Your task to perform on an android device: open app "Pinterest" (install if not already installed) and enter user name: "Switzerland@yahoo.com" and password: "arithmetics" Image 0: 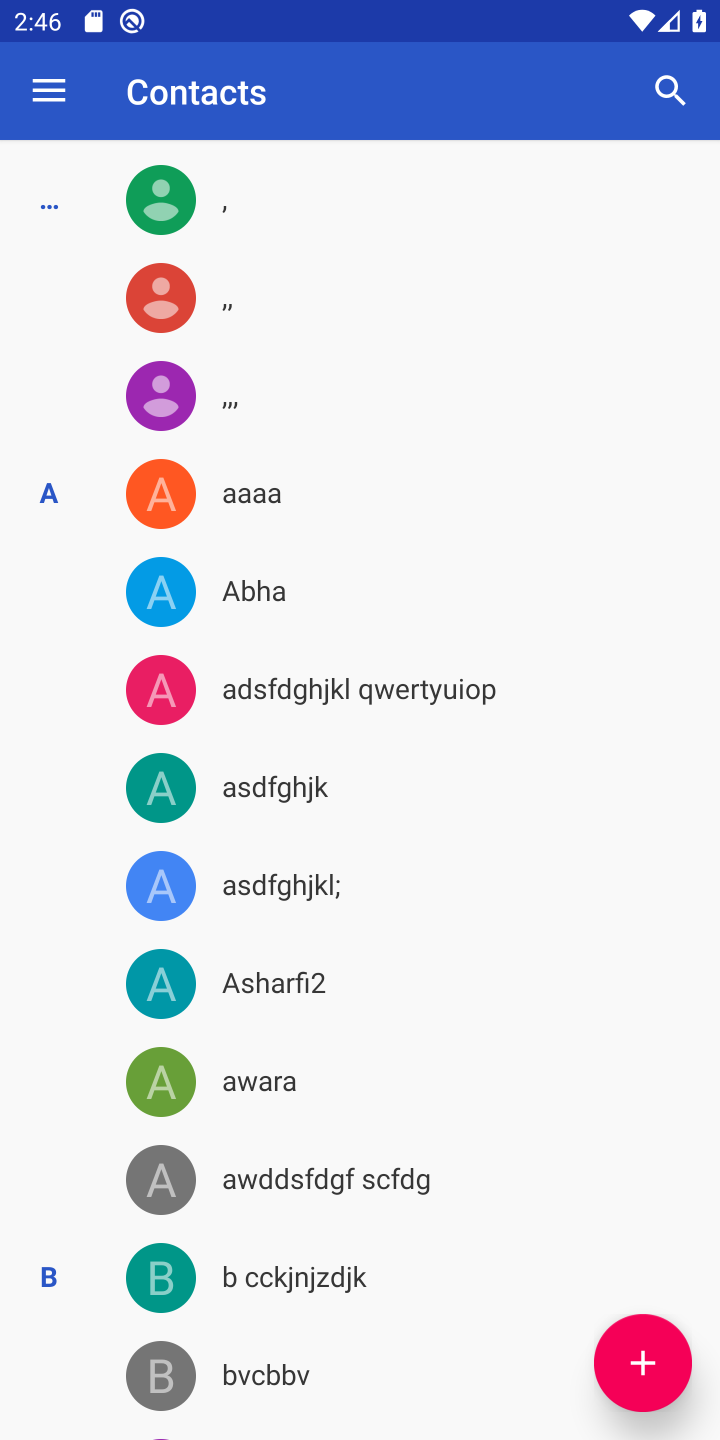
Step 0: press back button
Your task to perform on an android device: open app "Pinterest" (install if not already installed) and enter user name: "Switzerland@yahoo.com" and password: "arithmetics" Image 1: 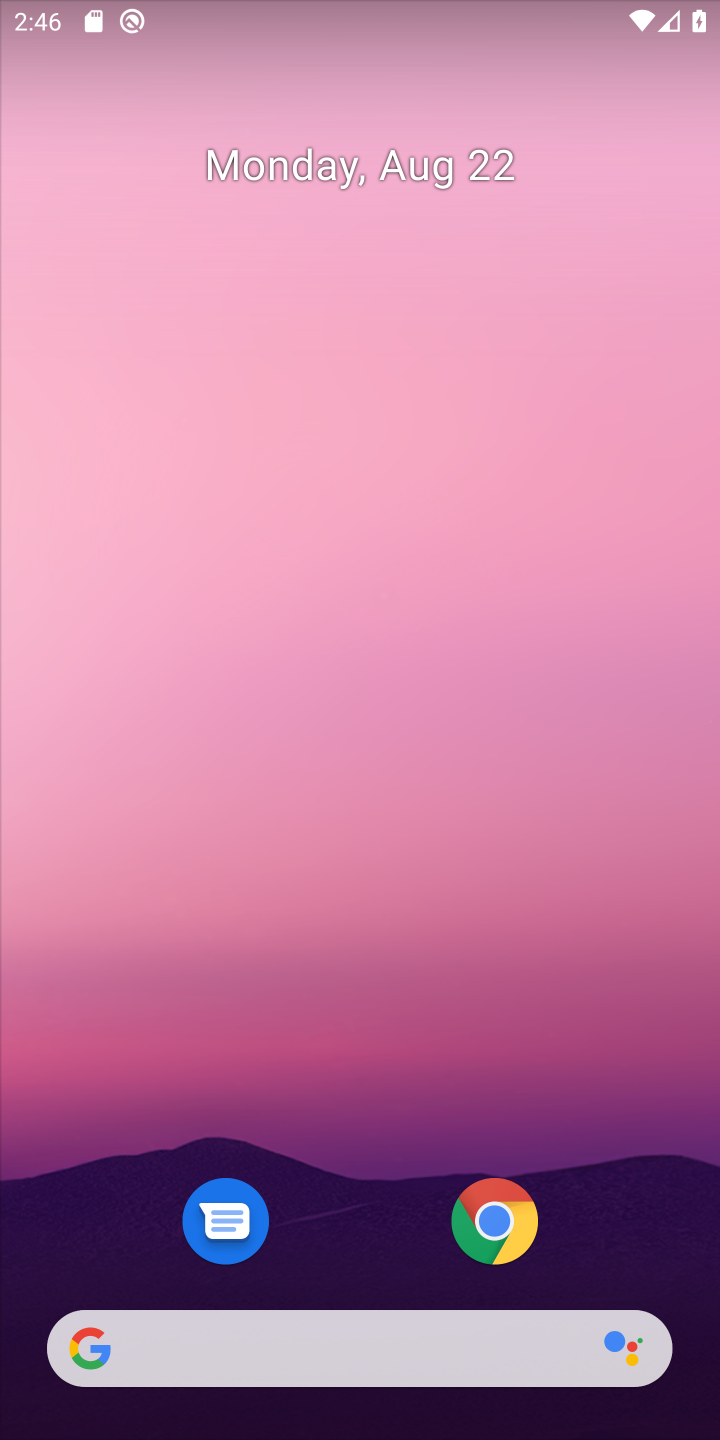
Step 1: drag from (364, 1269) to (302, 242)
Your task to perform on an android device: open app "Pinterest" (install if not already installed) and enter user name: "Switzerland@yahoo.com" and password: "arithmetics" Image 2: 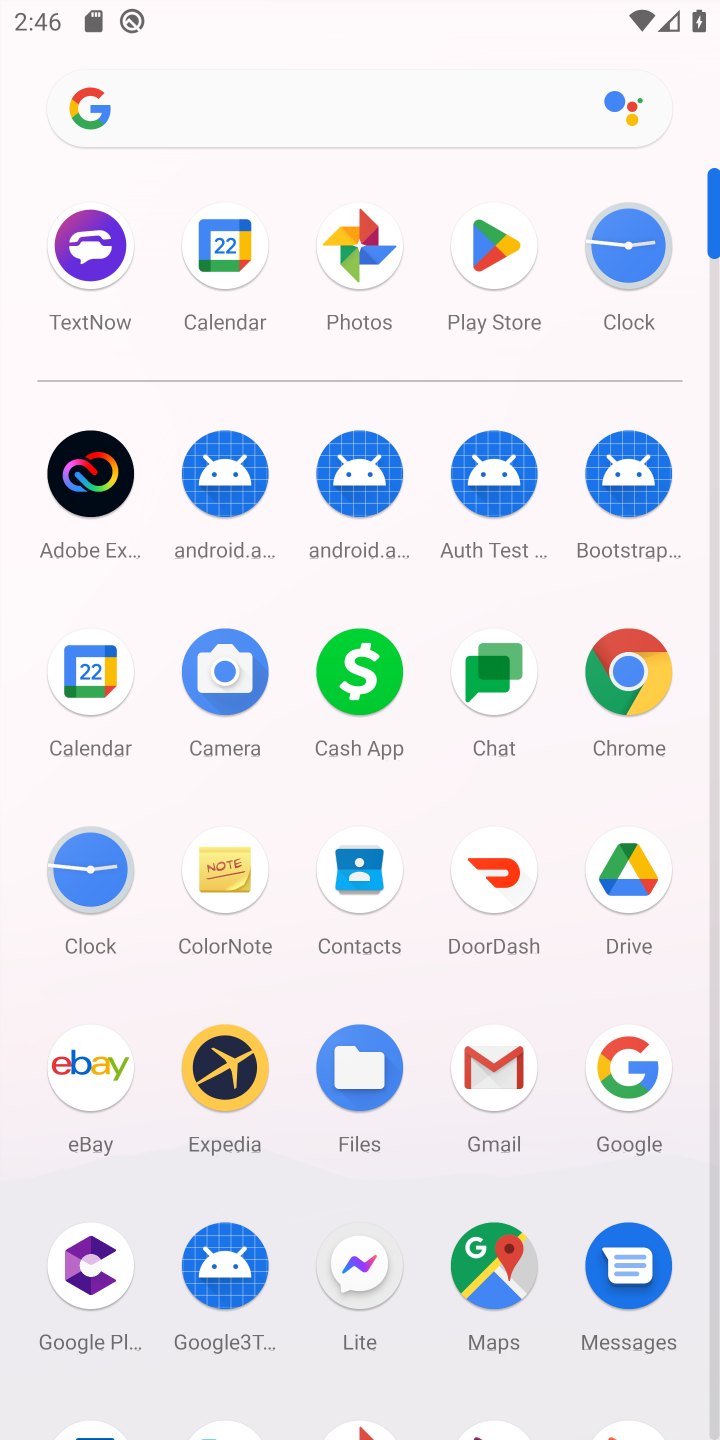
Step 2: click (494, 239)
Your task to perform on an android device: open app "Pinterest" (install if not already installed) and enter user name: "Switzerland@yahoo.com" and password: "arithmetics" Image 3: 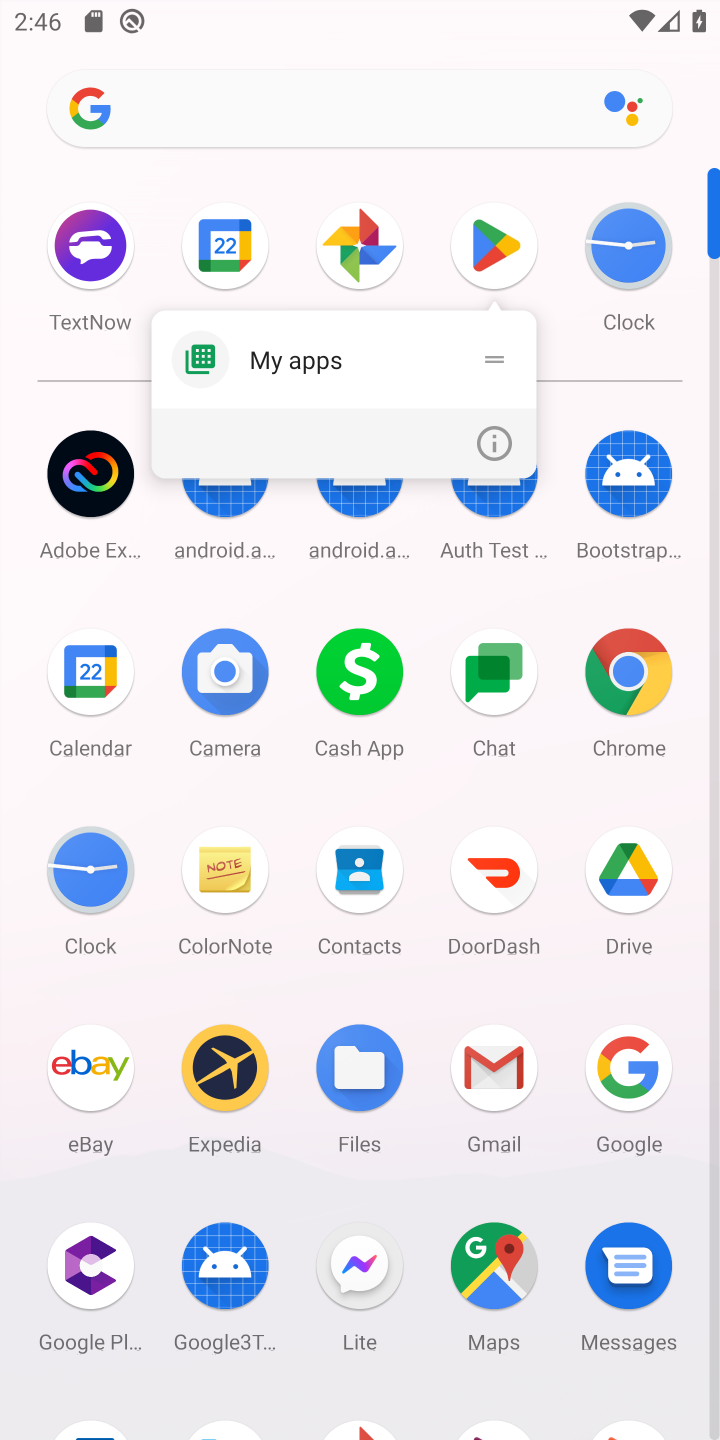
Step 3: click (494, 239)
Your task to perform on an android device: open app "Pinterest" (install if not already installed) and enter user name: "Switzerland@yahoo.com" and password: "arithmetics" Image 4: 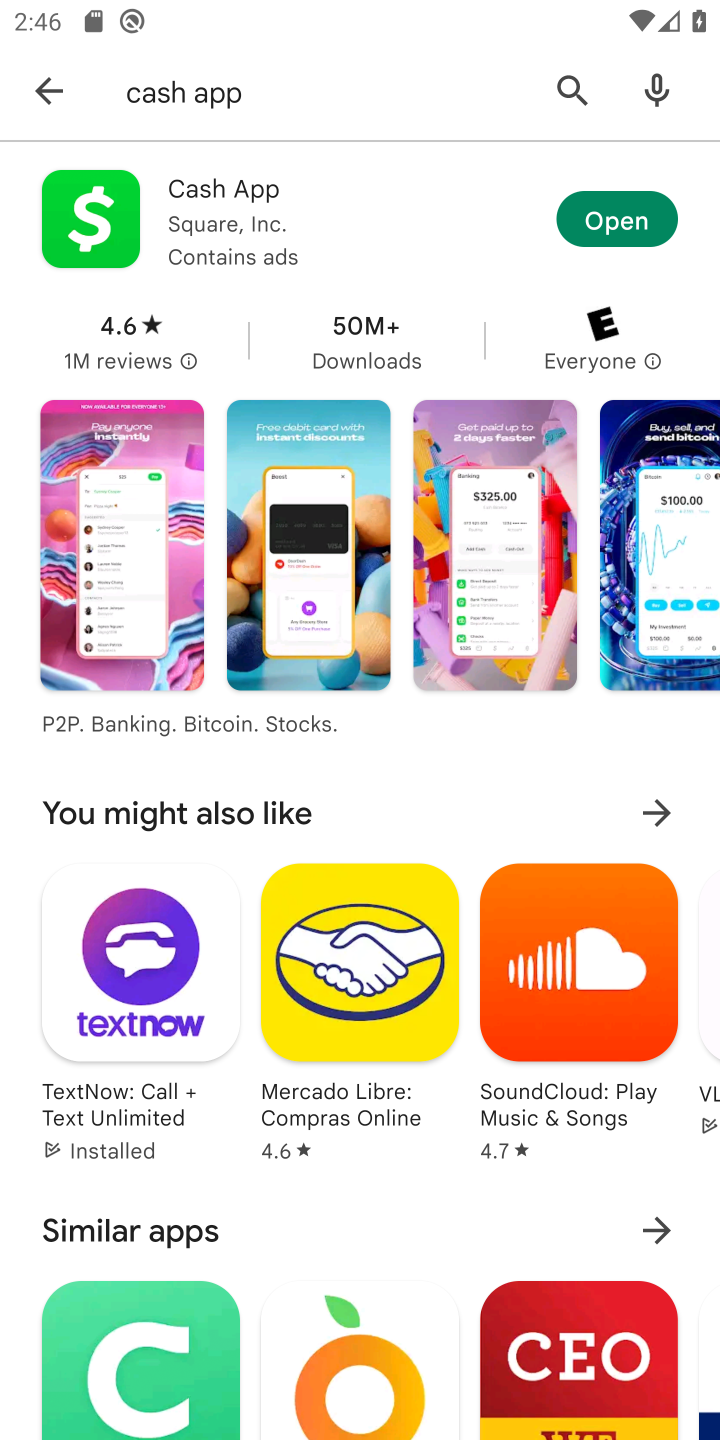
Step 4: click (561, 87)
Your task to perform on an android device: open app "Pinterest" (install if not already installed) and enter user name: "Switzerland@yahoo.com" and password: "arithmetics" Image 5: 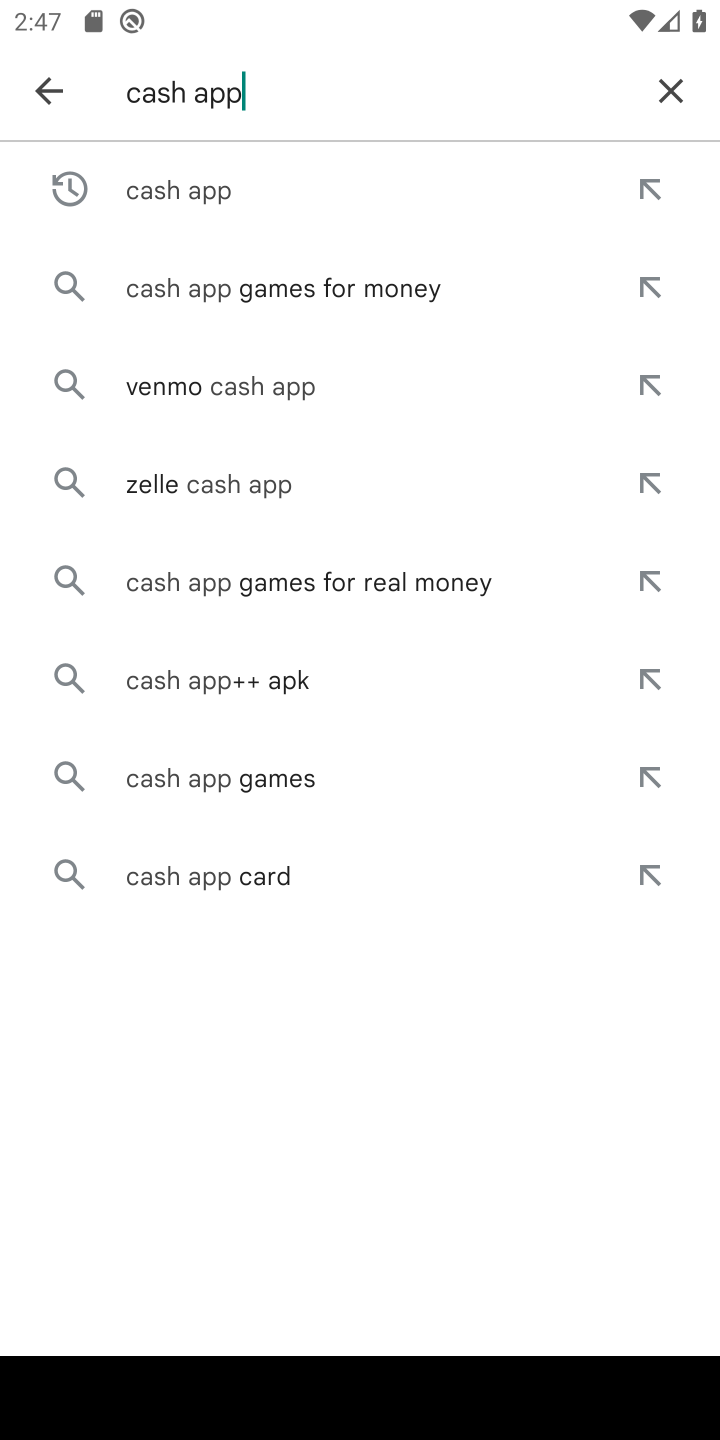
Step 5: click (663, 88)
Your task to perform on an android device: open app "Pinterest" (install if not already installed) and enter user name: "Switzerland@yahoo.com" and password: "arithmetics" Image 6: 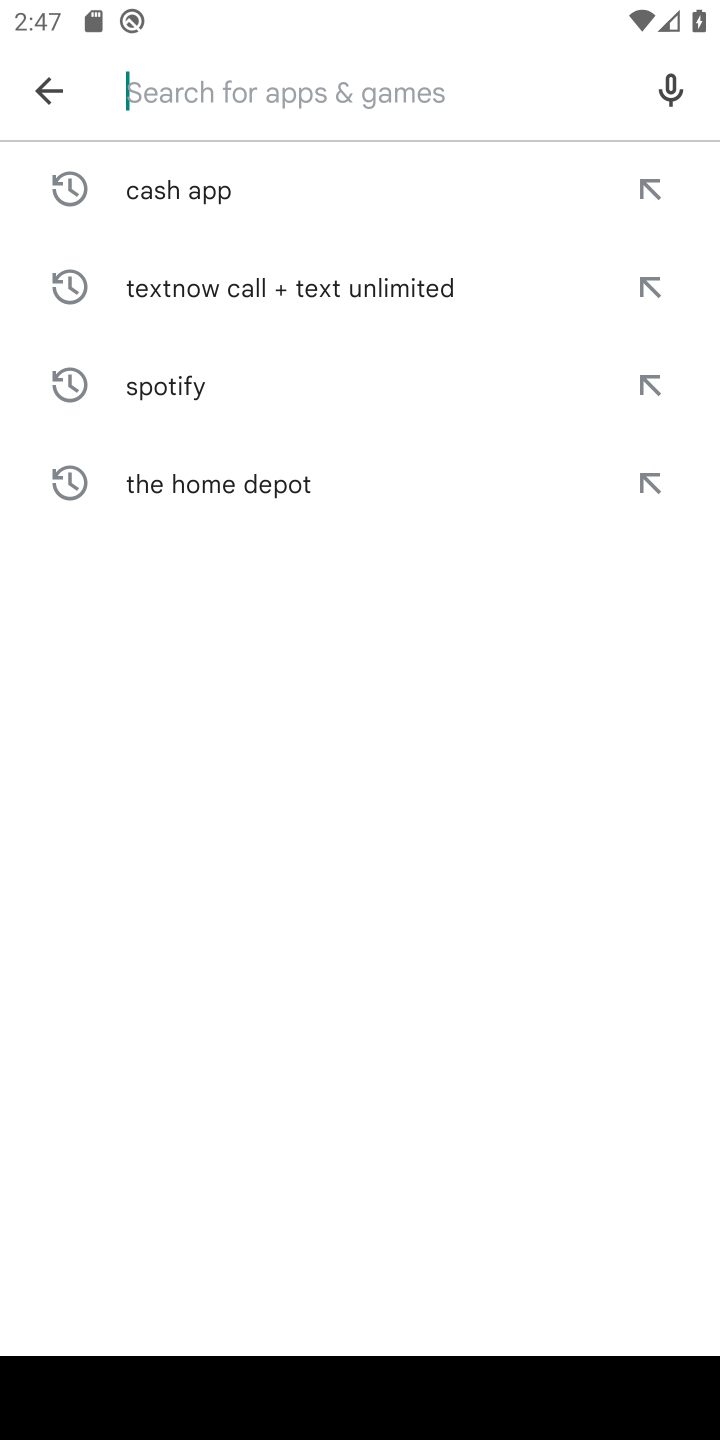
Step 6: type "Pinterest"
Your task to perform on an android device: open app "Pinterest" (install if not already installed) and enter user name: "Switzerland@yahoo.com" and password: "arithmetics" Image 7: 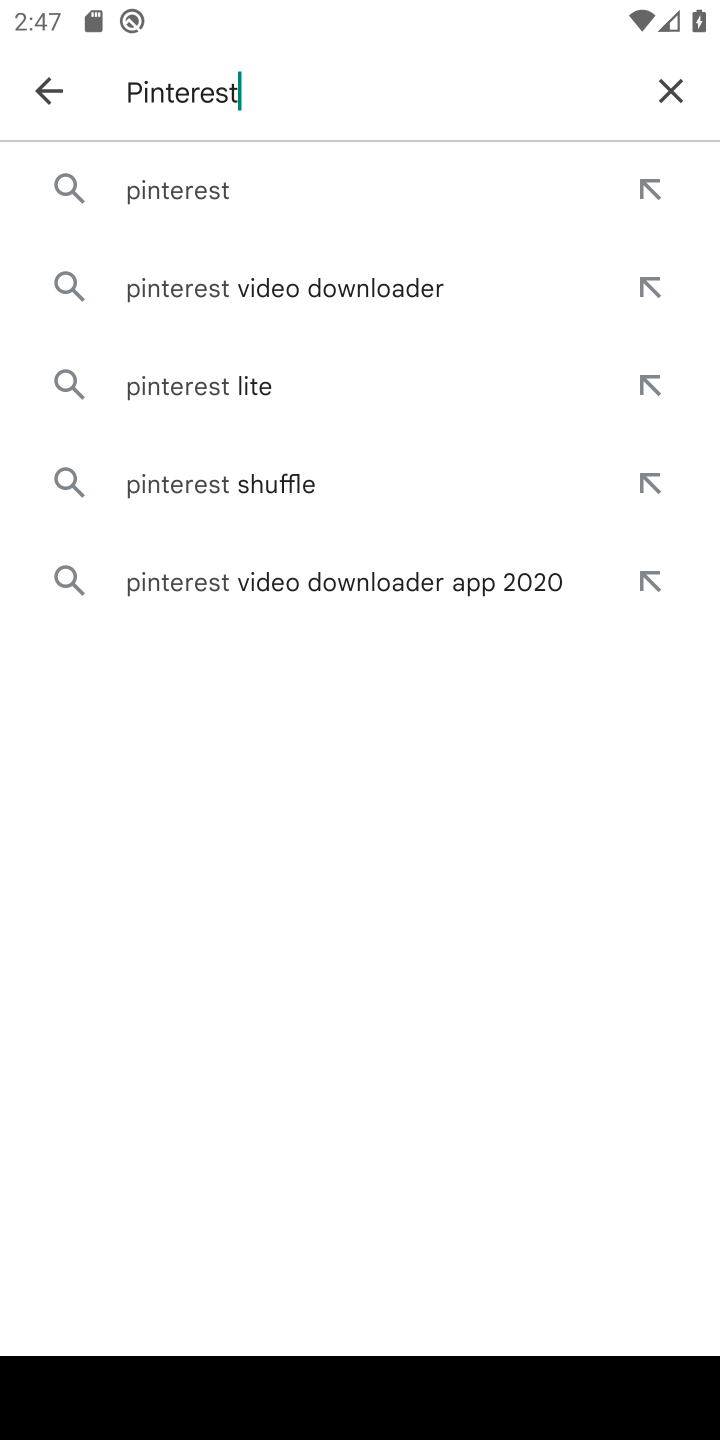
Step 7: type ""
Your task to perform on an android device: open app "Pinterest" (install if not already installed) and enter user name: "Switzerland@yahoo.com" and password: "arithmetics" Image 8: 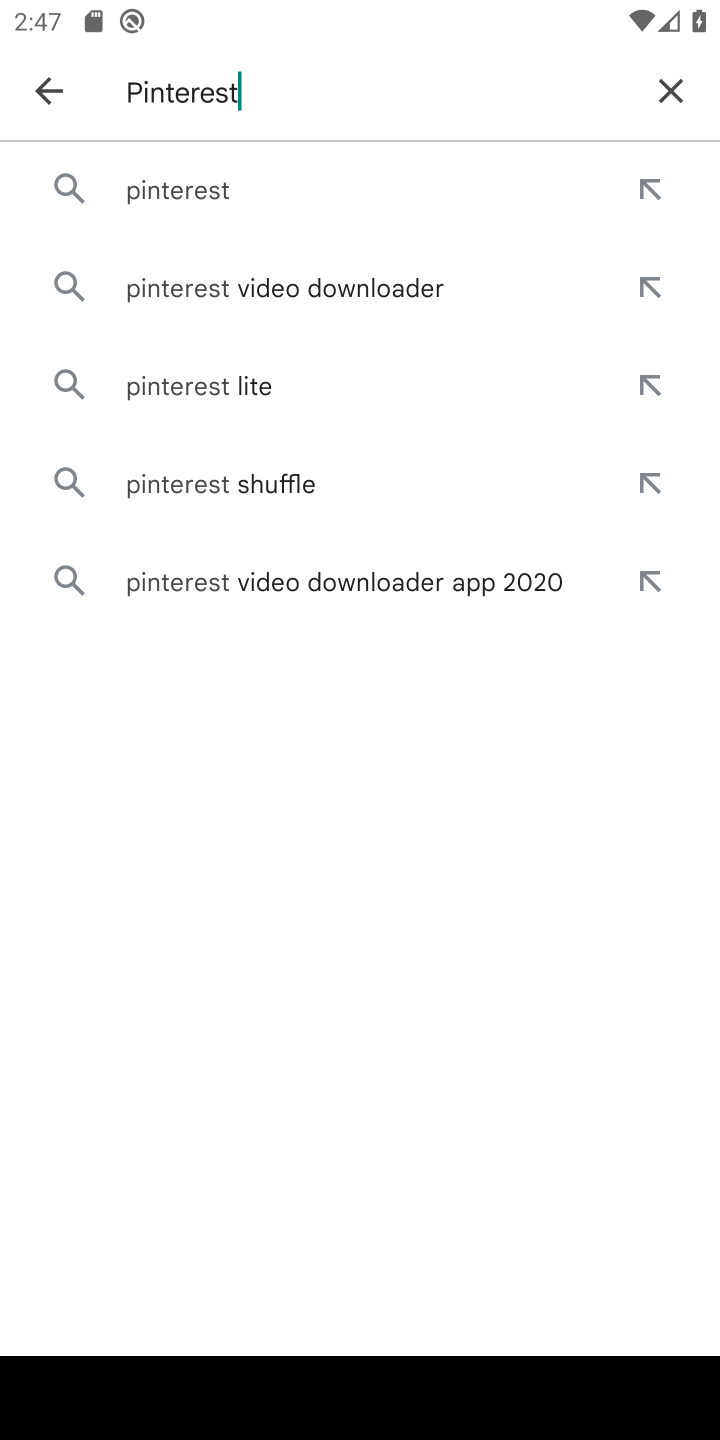
Step 8: click (252, 179)
Your task to perform on an android device: open app "Pinterest" (install if not already installed) and enter user name: "Switzerland@yahoo.com" and password: "arithmetics" Image 9: 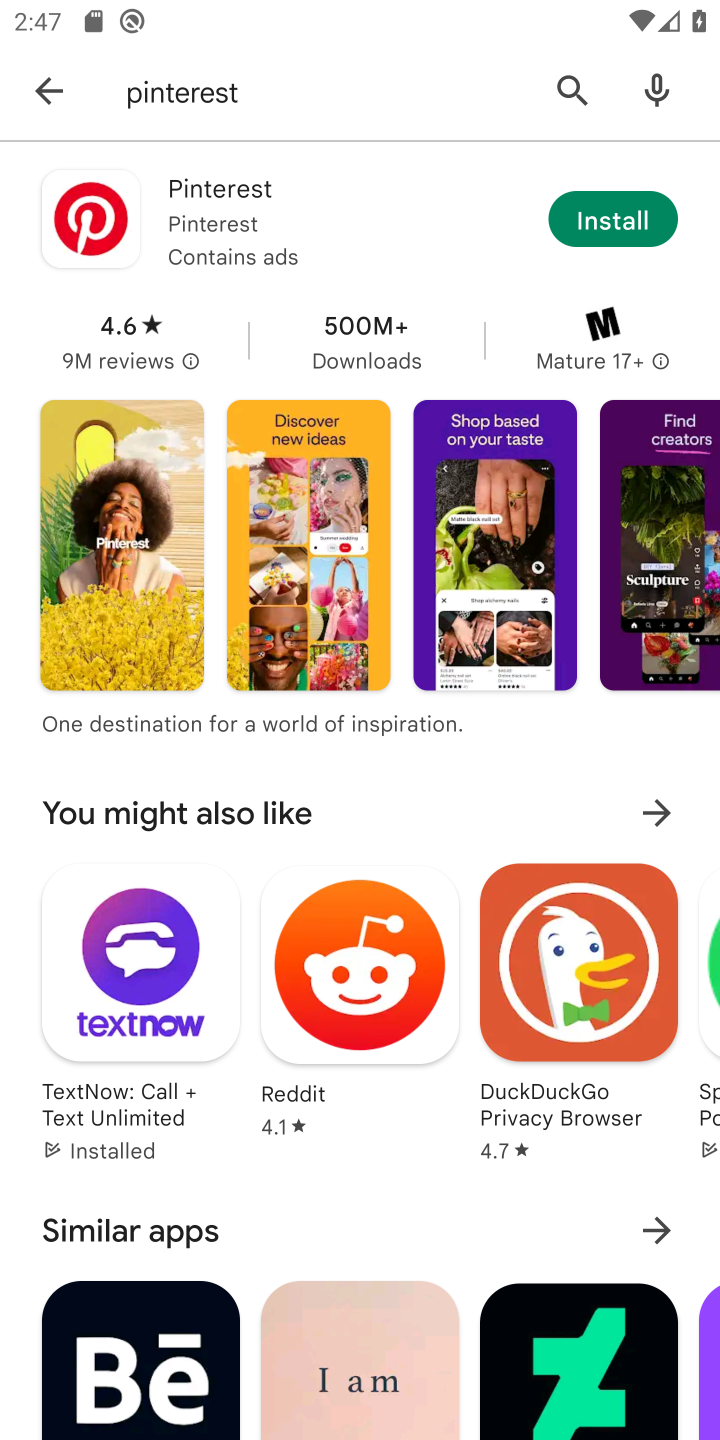
Step 9: click (621, 230)
Your task to perform on an android device: open app "Pinterest" (install if not already installed) and enter user name: "Switzerland@yahoo.com" and password: "arithmetics" Image 10: 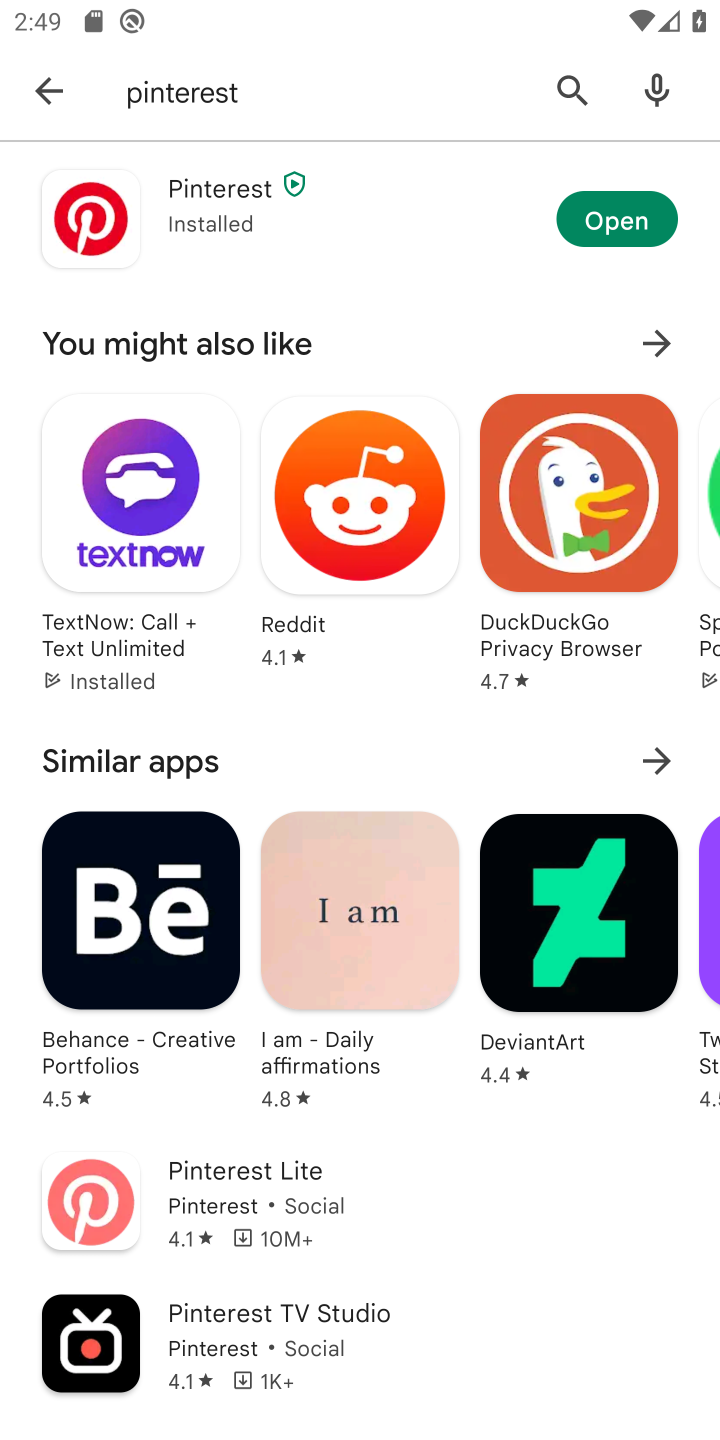
Step 10: click (620, 210)
Your task to perform on an android device: open app "Pinterest" (install if not already installed) and enter user name: "Switzerland@yahoo.com" and password: "arithmetics" Image 11: 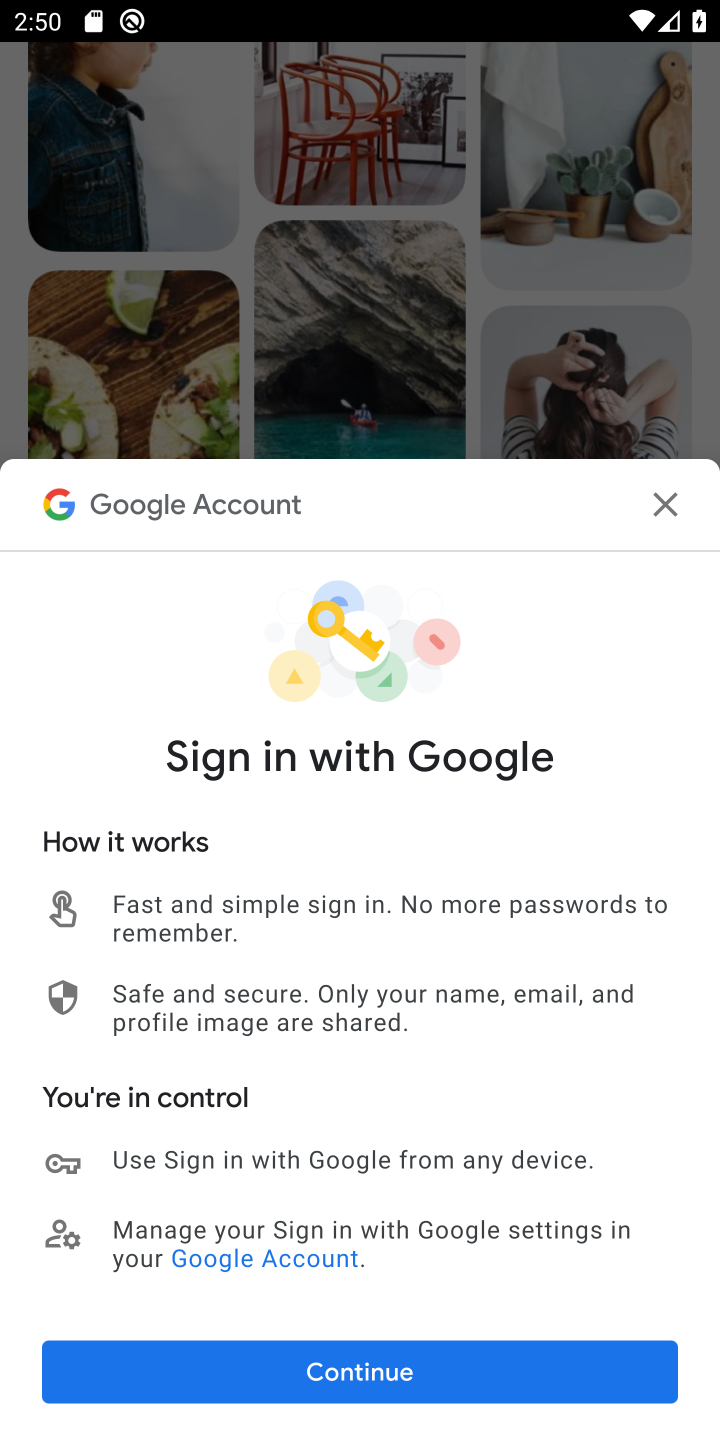
Step 11: click (366, 1369)
Your task to perform on an android device: open app "Pinterest" (install if not already installed) and enter user name: "Switzerland@yahoo.com" and password: "arithmetics" Image 12: 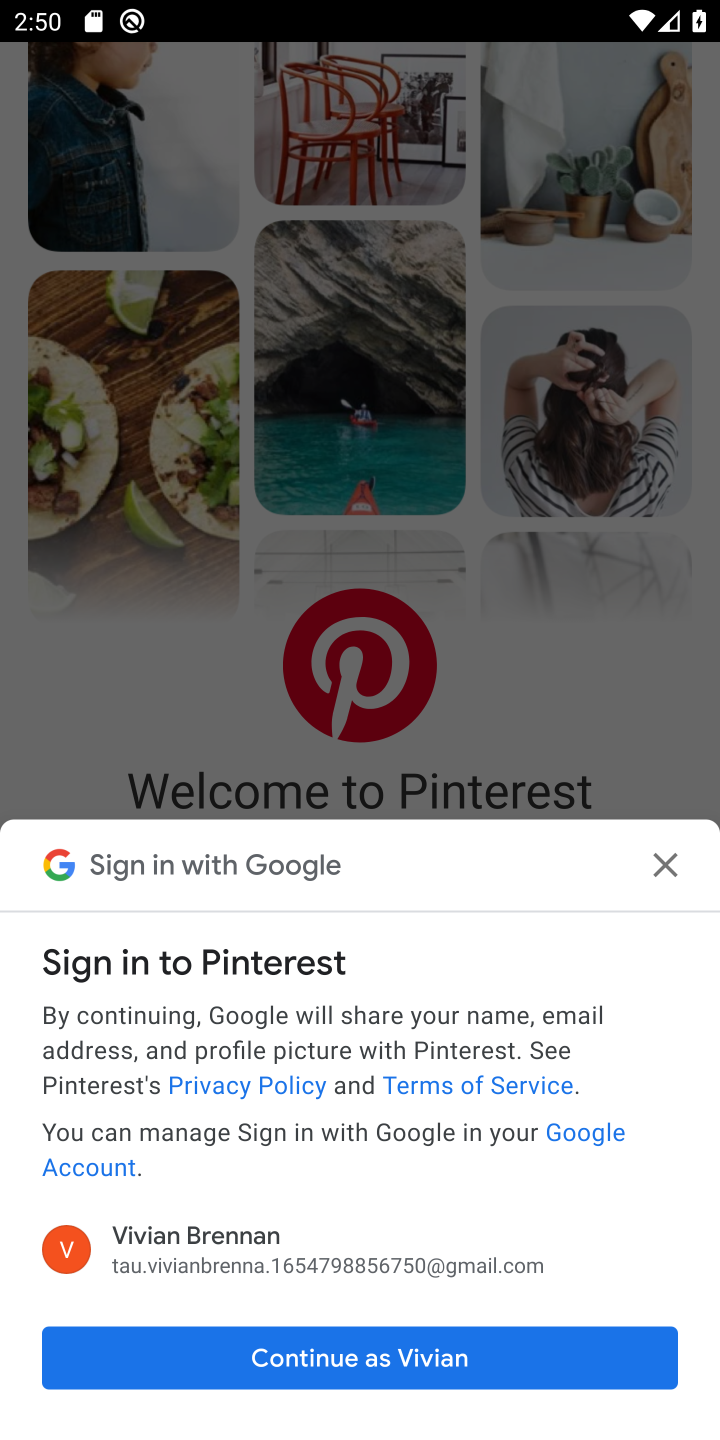
Step 12: click (385, 1364)
Your task to perform on an android device: open app "Pinterest" (install if not already installed) and enter user name: "Switzerland@yahoo.com" and password: "arithmetics" Image 13: 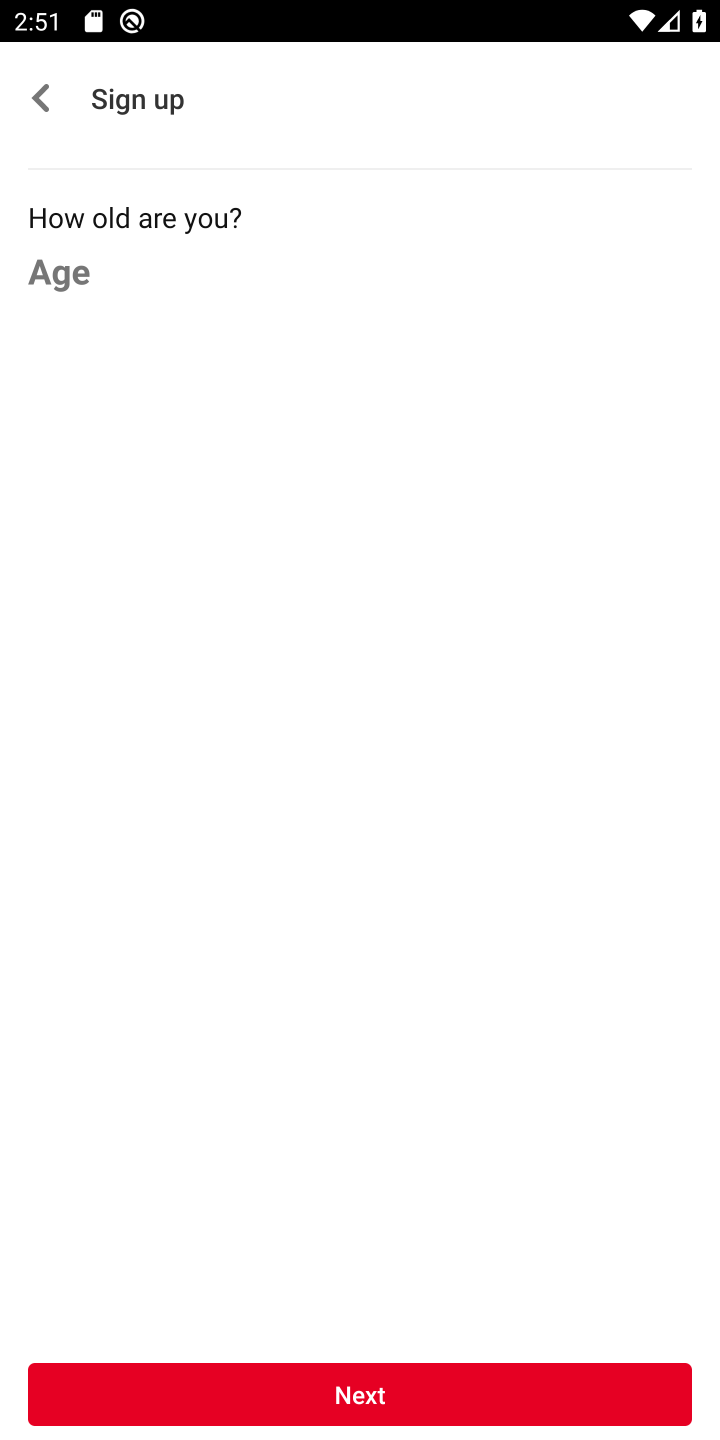
Step 13: click (389, 1384)
Your task to perform on an android device: open app "Pinterest" (install if not already installed) and enter user name: "Switzerland@yahoo.com" and password: "arithmetics" Image 14: 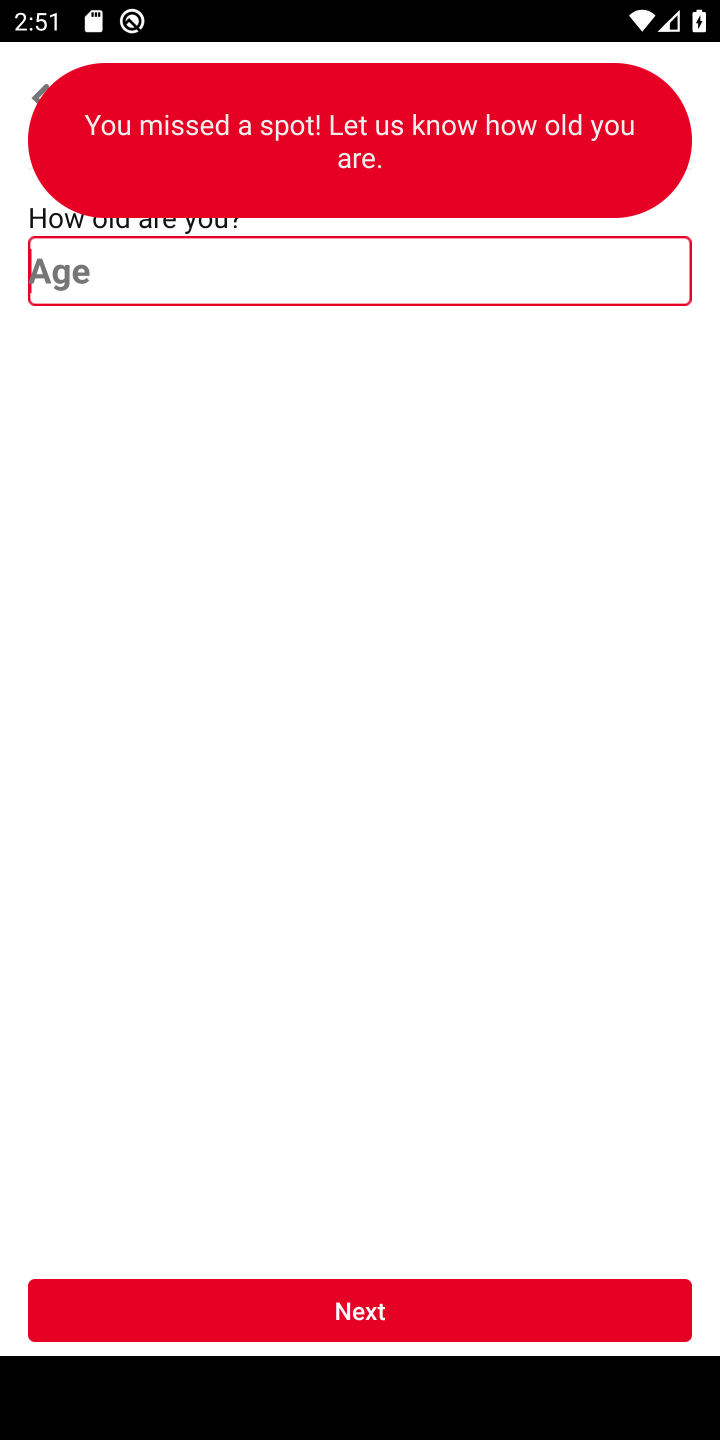
Step 14: task complete